Your task to perform on an android device: change notifications settings Image 0: 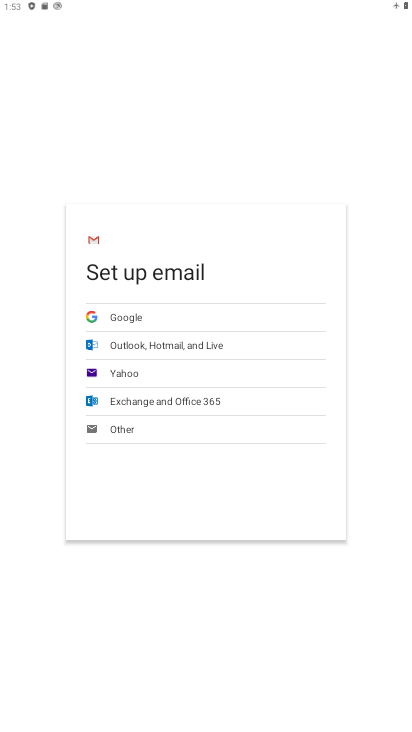
Step 0: press home button
Your task to perform on an android device: change notifications settings Image 1: 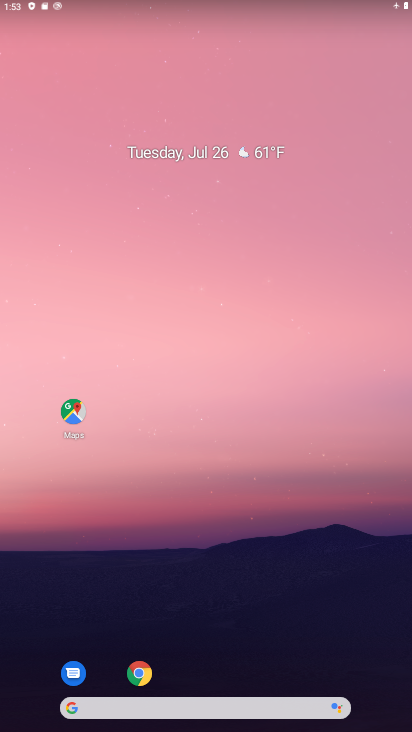
Step 1: drag from (217, 655) to (266, 364)
Your task to perform on an android device: change notifications settings Image 2: 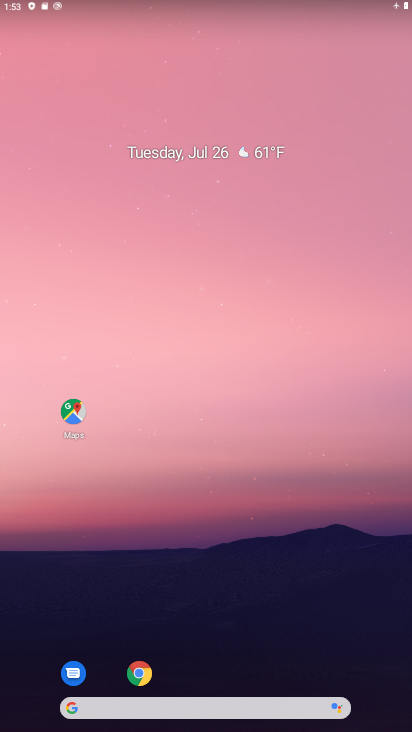
Step 2: drag from (211, 670) to (301, 191)
Your task to perform on an android device: change notifications settings Image 3: 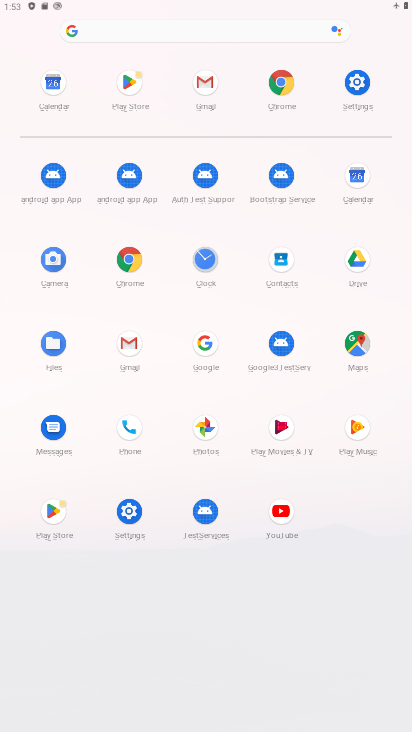
Step 3: click (120, 514)
Your task to perform on an android device: change notifications settings Image 4: 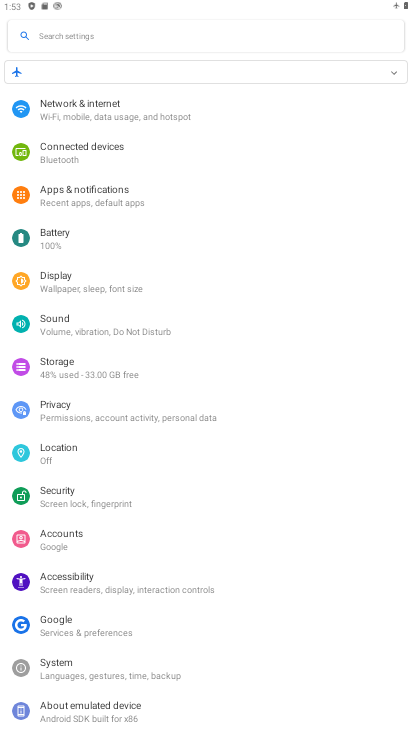
Step 4: click (130, 178)
Your task to perform on an android device: change notifications settings Image 5: 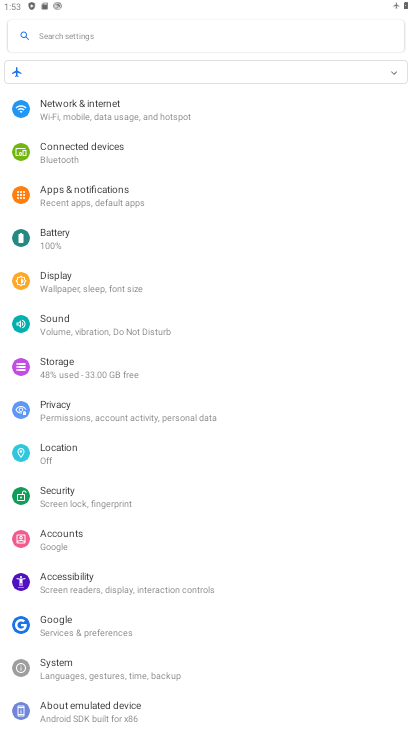
Step 5: click (129, 176)
Your task to perform on an android device: change notifications settings Image 6: 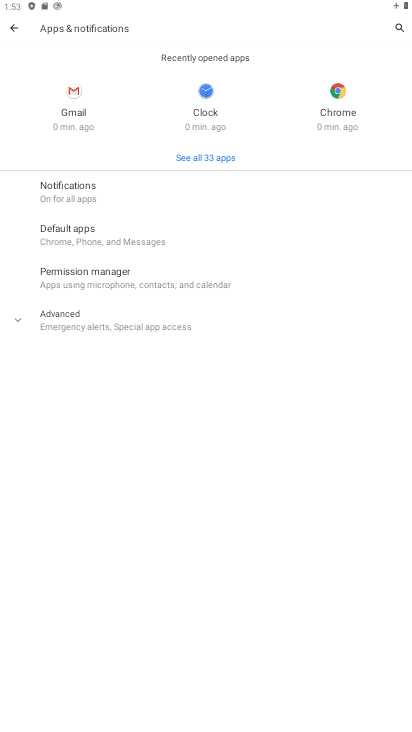
Step 6: click (168, 181)
Your task to perform on an android device: change notifications settings Image 7: 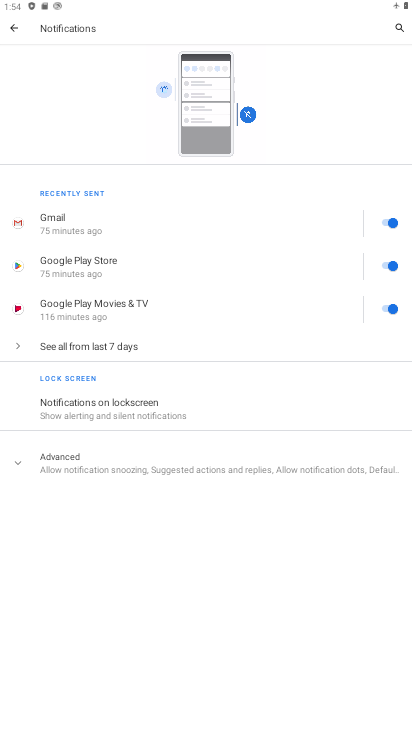
Step 7: task complete